Your task to perform on an android device: Open calendar and show me the second week of next month Image 0: 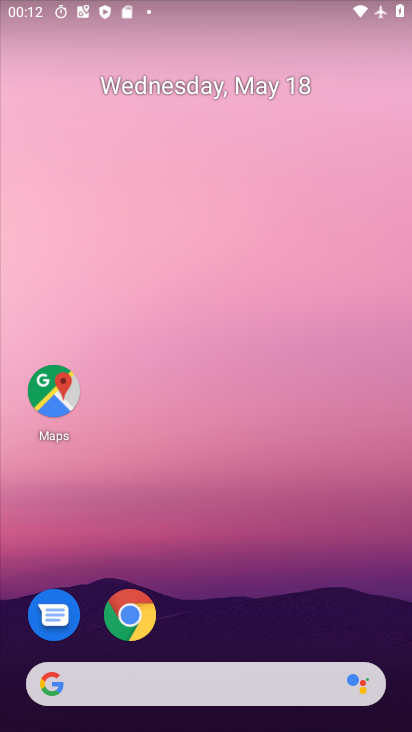
Step 0: drag from (233, 613) to (281, 209)
Your task to perform on an android device: Open calendar and show me the second week of next month Image 1: 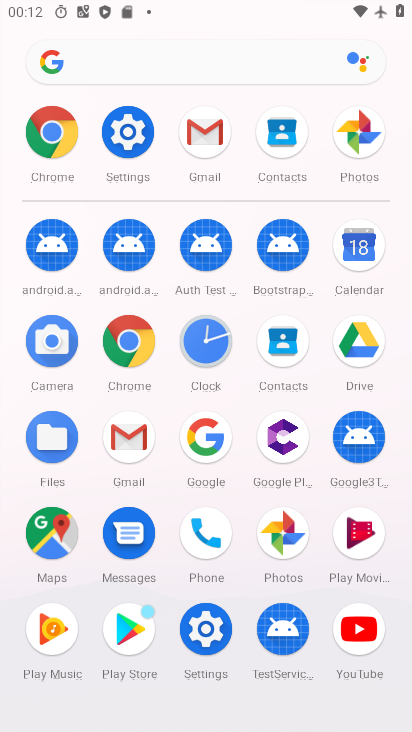
Step 1: click (361, 263)
Your task to perform on an android device: Open calendar and show me the second week of next month Image 2: 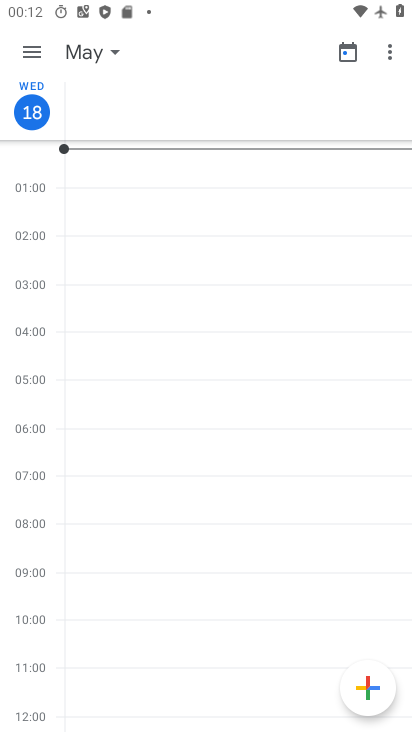
Step 2: click (111, 49)
Your task to perform on an android device: Open calendar and show me the second week of next month Image 3: 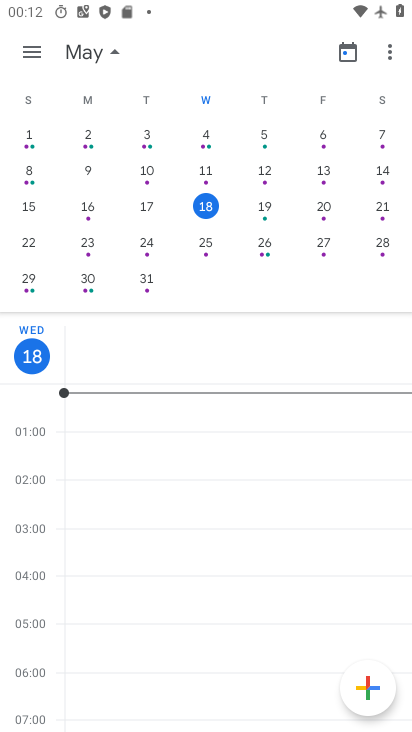
Step 3: drag from (354, 222) to (20, 175)
Your task to perform on an android device: Open calendar and show me the second week of next month Image 4: 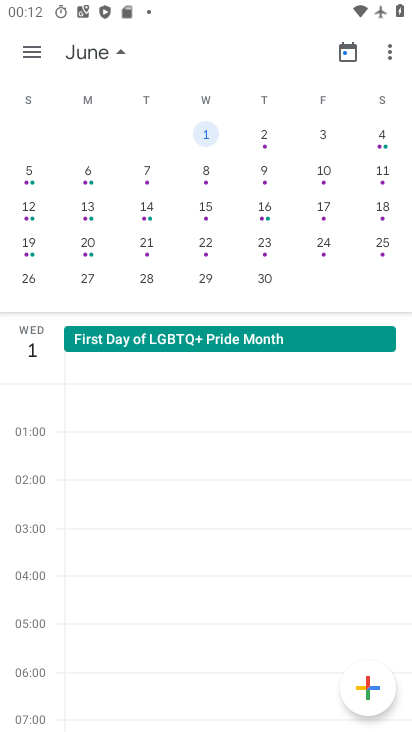
Step 4: click (29, 172)
Your task to perform on an android device: Open calendar and show me the second week of next month Image 5: 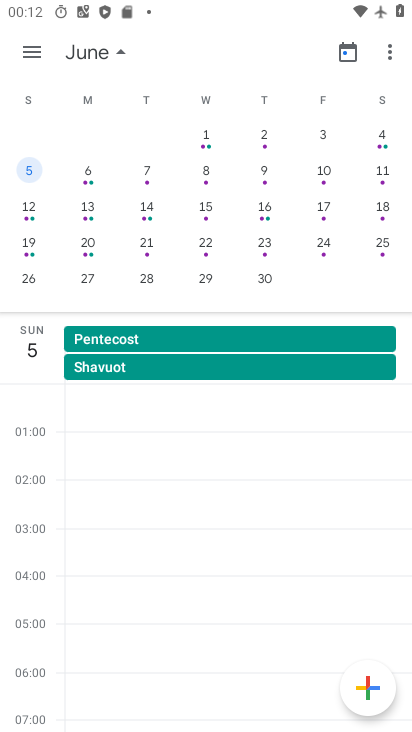
Step 5: task complete